Your task to perform on an android device: find snoozed emails in the gmail app Image 0: 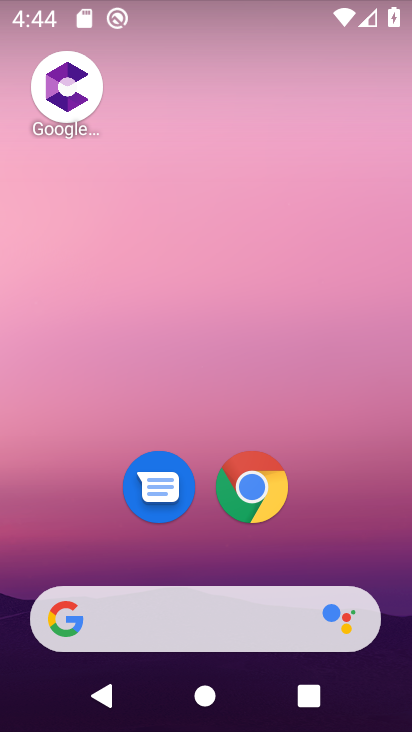
Step 0: drag from (363, 528) to (289, 47)
Your task to perform on an android device: find snoozed emails in the gmail app Image 1: 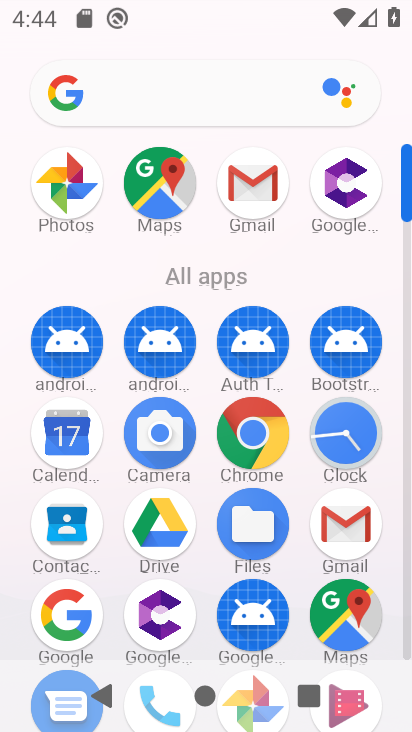
Step 1: click (350, 554)
Your task to perform on an android device: find snoozed emails in the gmail app Image 2: 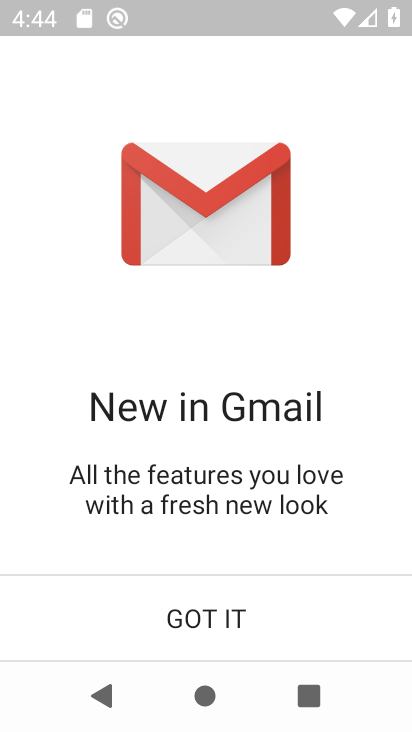
Step 2: click (239, 609)
Your task to perform on an android device: find snoozed emails in the gmail app Image 3: 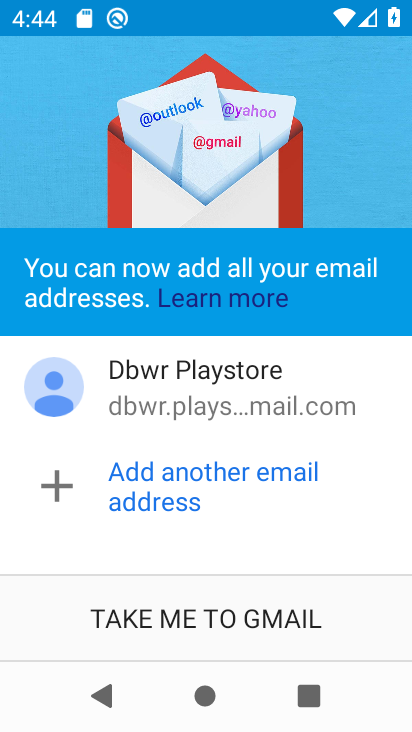
Step 3: click (233, 606)
Your task to perform on an android device: find snoozed emails in the gmail app Image 4: 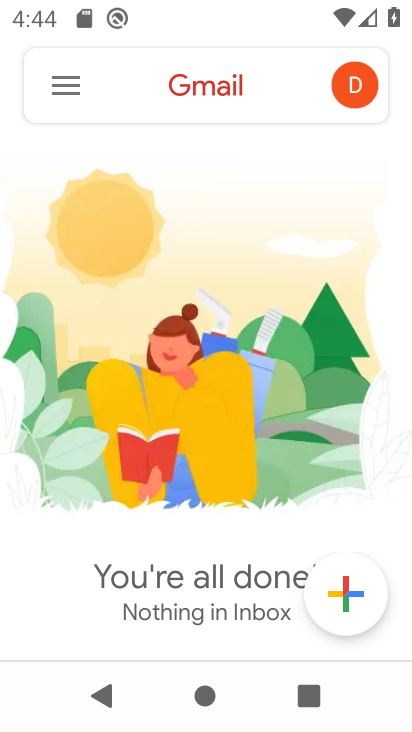
Step 4: click (67, 106)
Your task to perform on an android device: find snoozed emails in the gmail app Image 5: 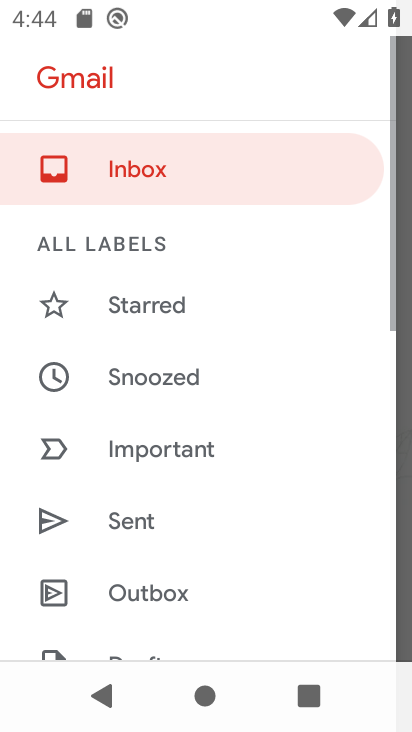
Step 5: drag from (100, 630) to (83, 327)
Your task to perform on an android device: find snoozed emails in the gmail app Image 6: 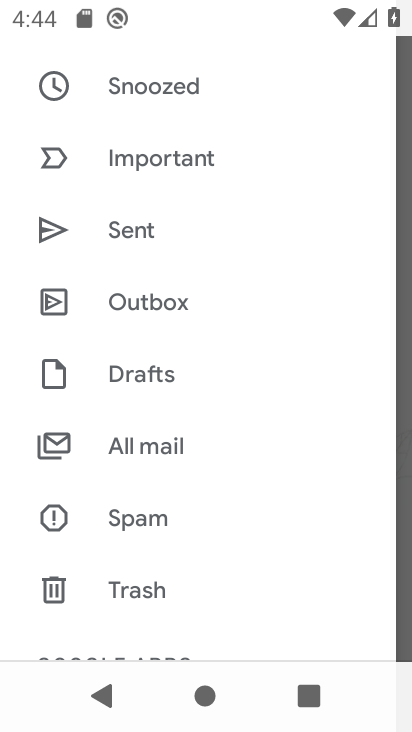
Step 6: drag from (156, 566) to (149, 373)
Your task to perform on an android device: find snoozed emails in the gmail app Image 7: 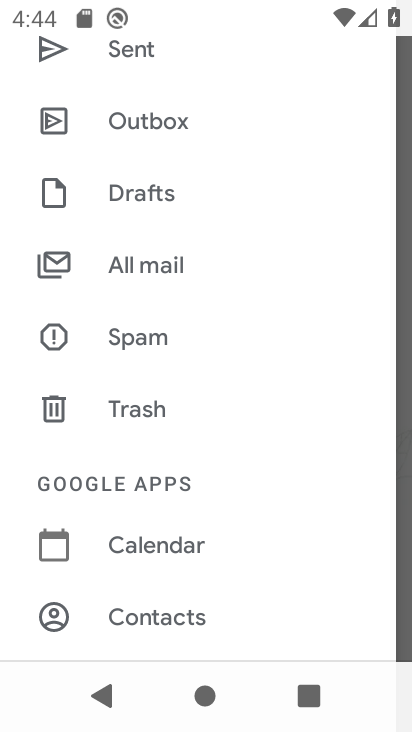
Step 7: drag from (139, 162) to (157, 553)
Your task to perform on an android device: find snoozed emails in the gmail app Image 8: 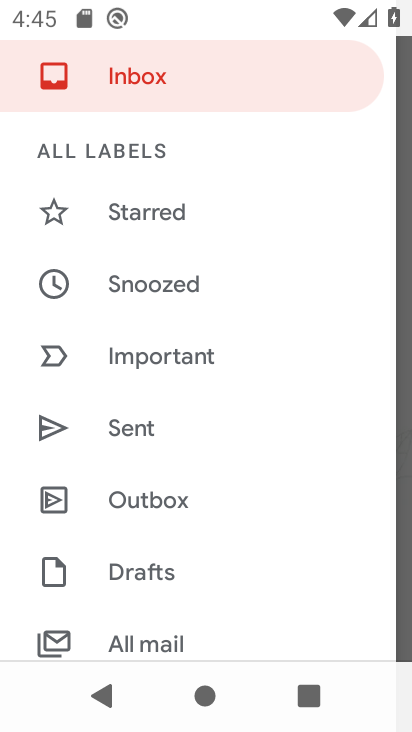
Step 8: click (199, 293)
Your task to perform on an android device: find snoozed emails in the gmail app Image 9: 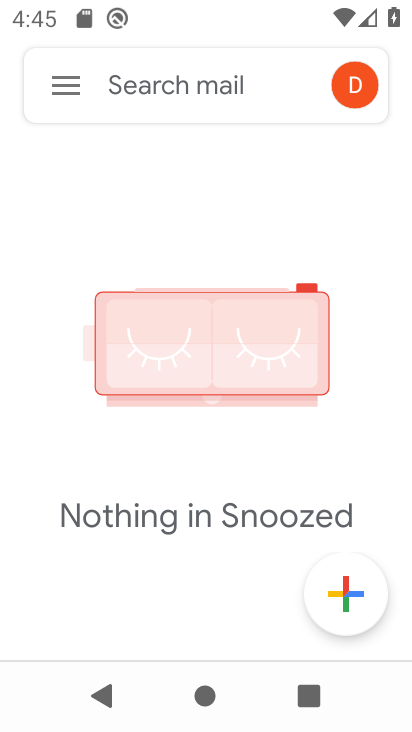
Step 9: task complete